Your task to perform on an android device: Go to network settings Image 0: 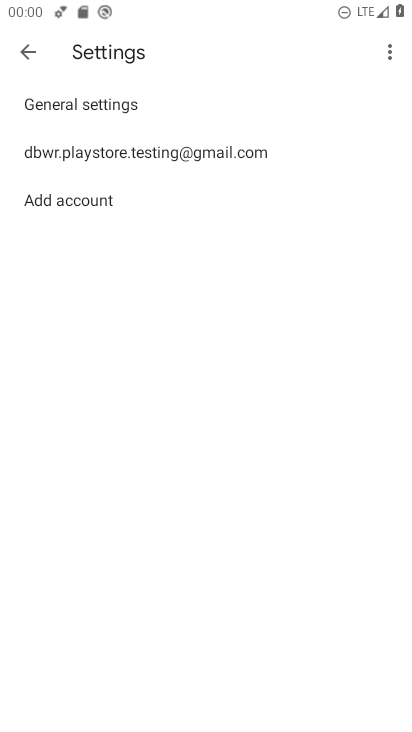
Step 0: press home button
Your task to perform on an android device: Go to network settings Image 1: 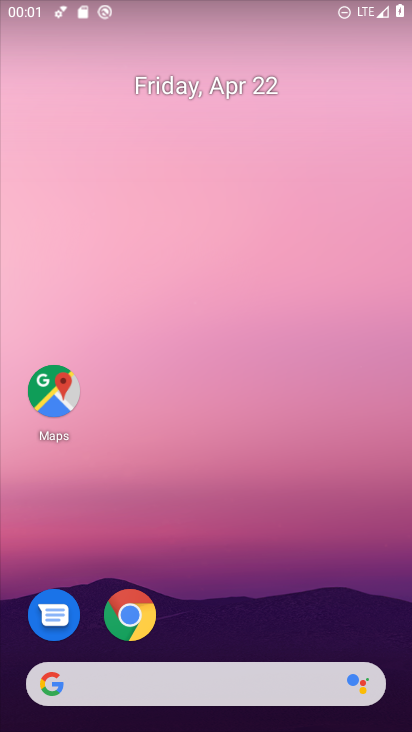
Step 1: drag from (208, 643) to (275, 82)
Your task to perform on an android device: Go to network settings Image 2: 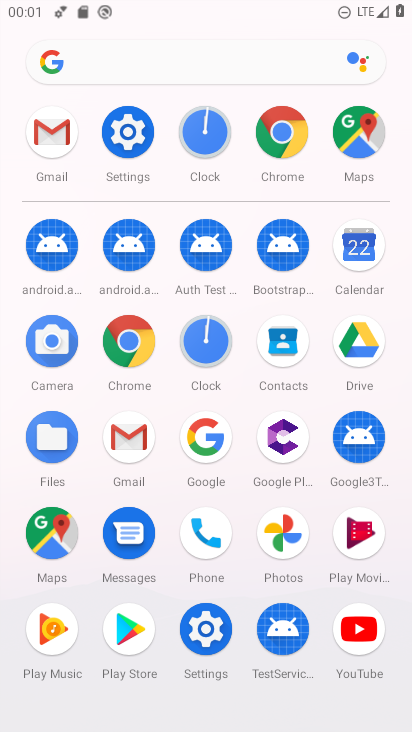
Step 2: click (129, 133)
Your task to perform on an android device: Go to network settings Image 3: 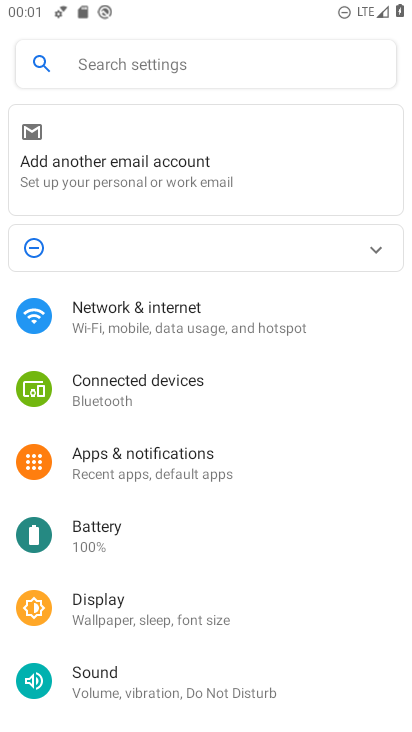
Step 3: click (117, 313)
Your task to perform on an android device: Go to network settings Image 4: 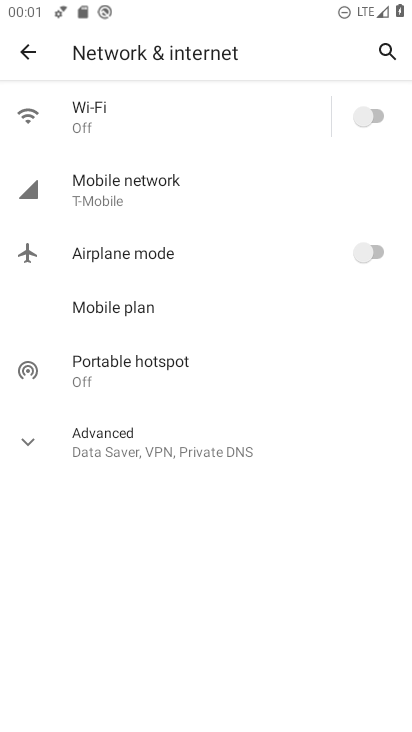
Step 4: click (36, 434)
Your task to perform on an android device: Go to network settings Image 5: 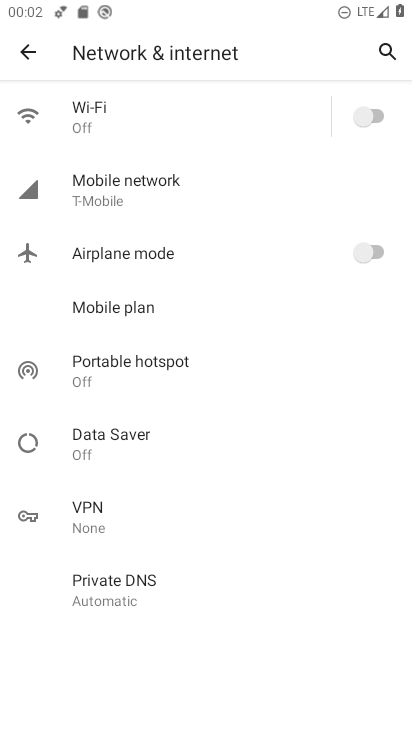
Step 5: task complete